Your task to perform on an android device: turn pop-ups off in chrome Image 0: 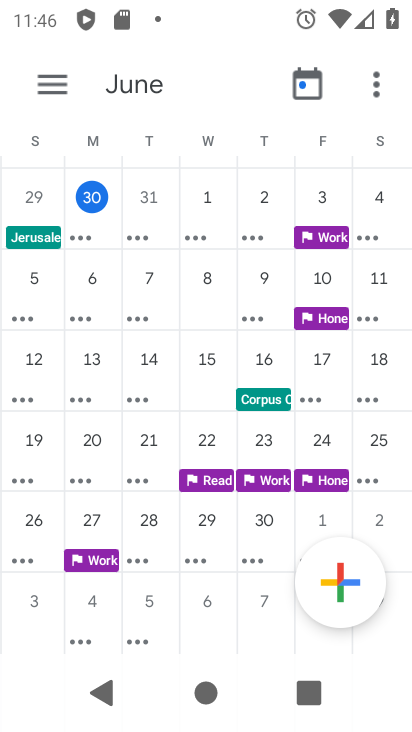
Step 0: press home button
Your task to perform on an android device: turn pop-ups off in chrome Image 1: 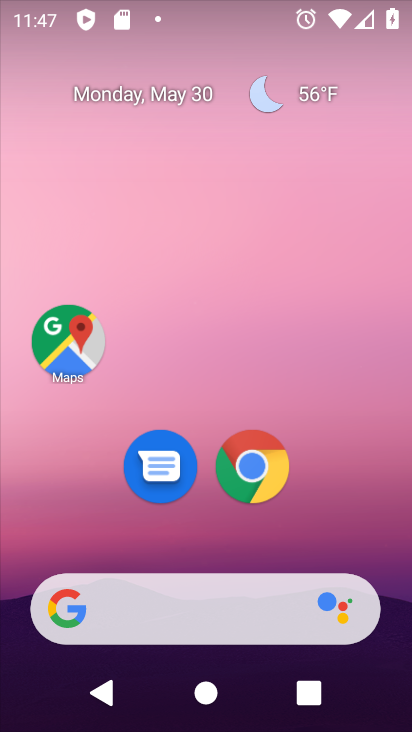
Step 1: click (272, 481)
Your task to perform on an android device: turn pop-ups off in chrome Image 2: 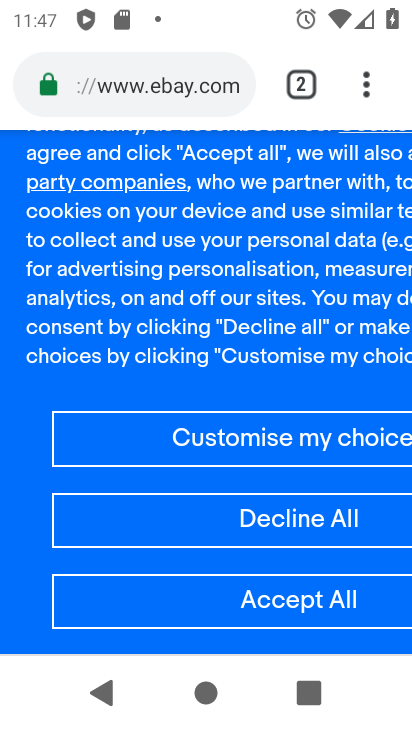
Step 2: click (364, 79)
Your task to perform on an android device: turn pop-ups off in chrome Image 3: 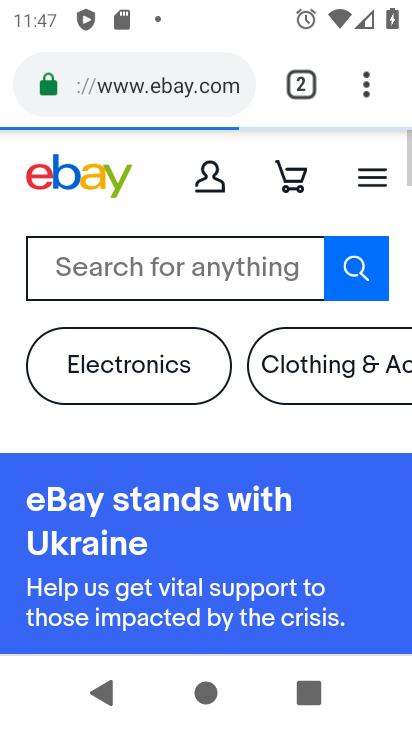
Step 3: drag from (364, 79) to (144, 519)
Your task to perform on an android device: turn pop-ups off in chrome Image 4: 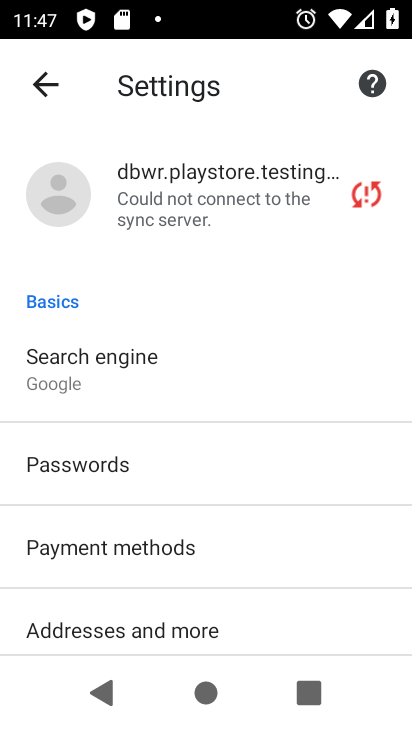
Step 4: drag from (98, 603) to (78, 311)
Your task to perform on an android device: turn pop-ups off in chrome Image 5: 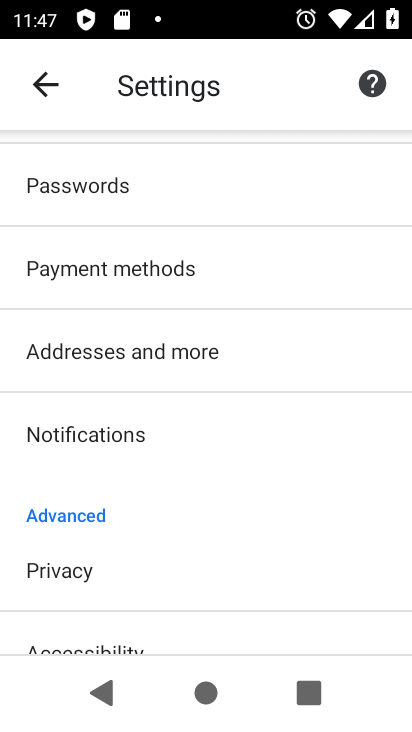
Step 5: drag from (54, 582) to (63, 1)
Your task to perform on an android device: turn pop-ups off in chrome Image 6: 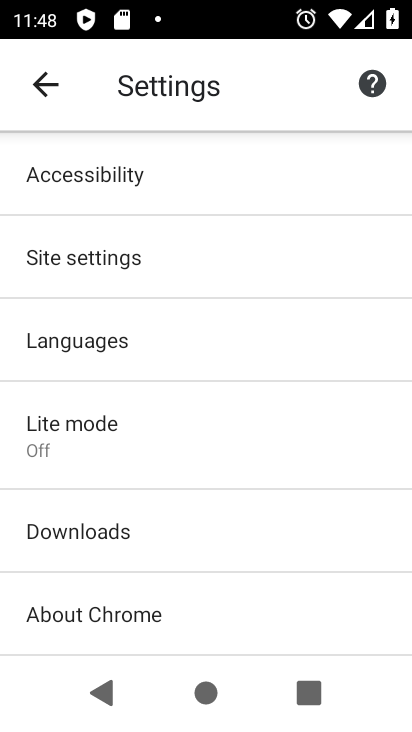
Step 6: click (115, 266)
Your task to perform on an android device: turn pop-ups off in chrome Image 7: 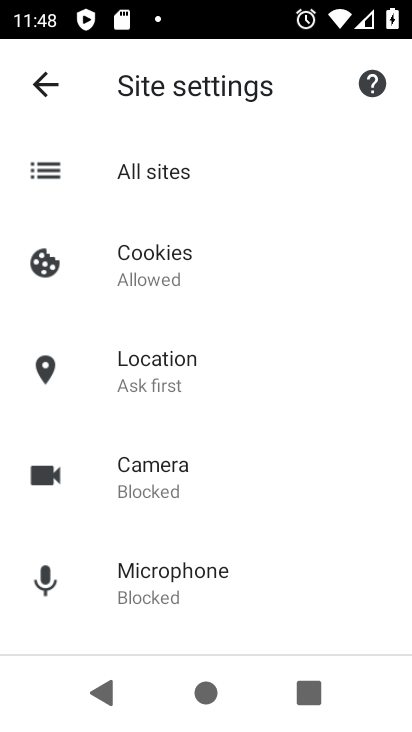
Step 7: drag from (199, 531) to (148, 134)
Your task to perform on an android device: turn pop-ups off in chrome Image 8: 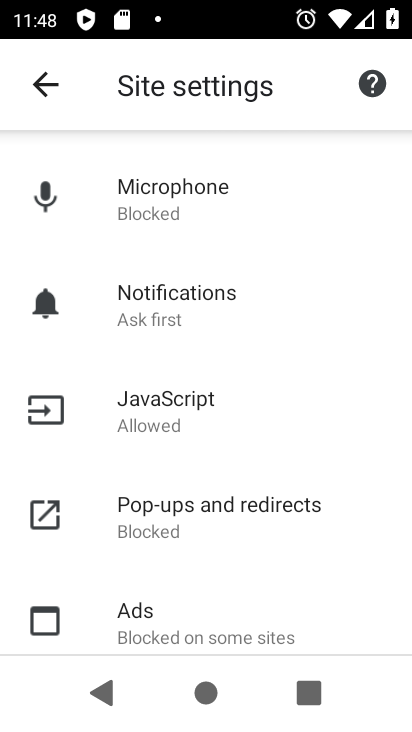
Step 8: click (183, 489)
Your task to perform on an android device: turn pop-ups off in chrome Image 9: 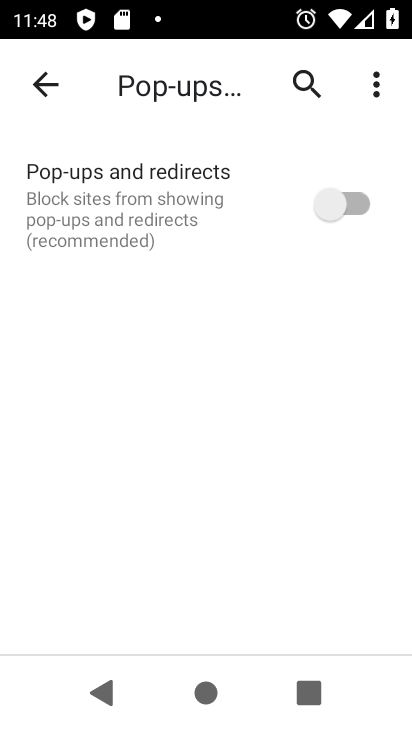
Step 9: task complete